Your task to perform on an android device: Go to Amazon Image 0: 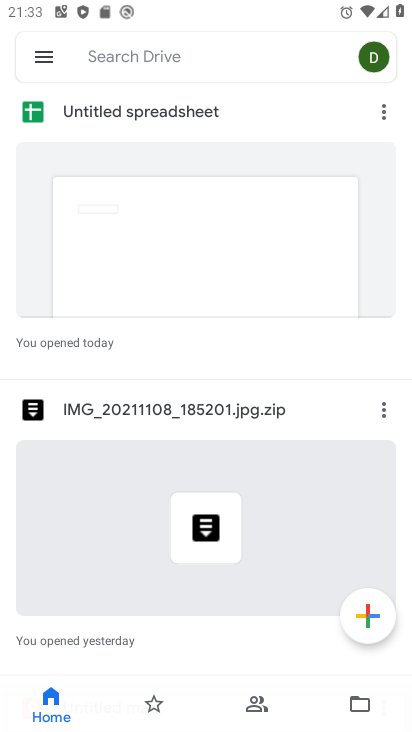
Step 0: press home button
Your task to perform on an android device: Go to Amazon Image 1: 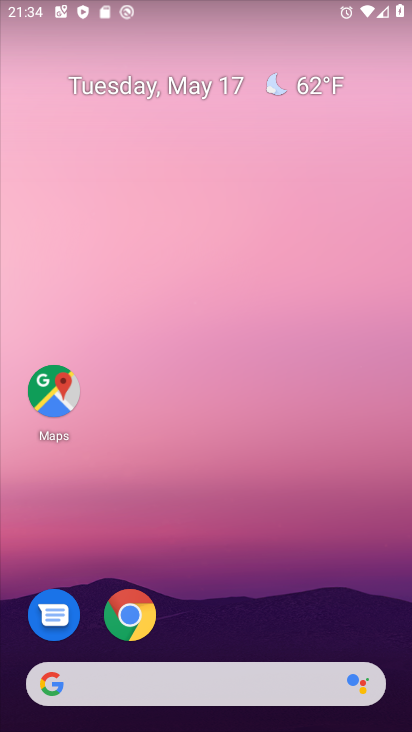
Step 1: click (136, 595)
Your task to perform on an android device: Go to Amazon Image 2: 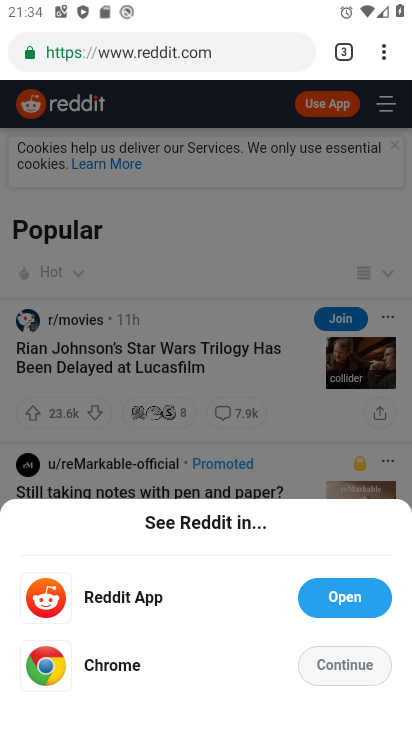
Step 2: click (121, 43)
Your task to perform on an android device: Go to Amazon Image 3: 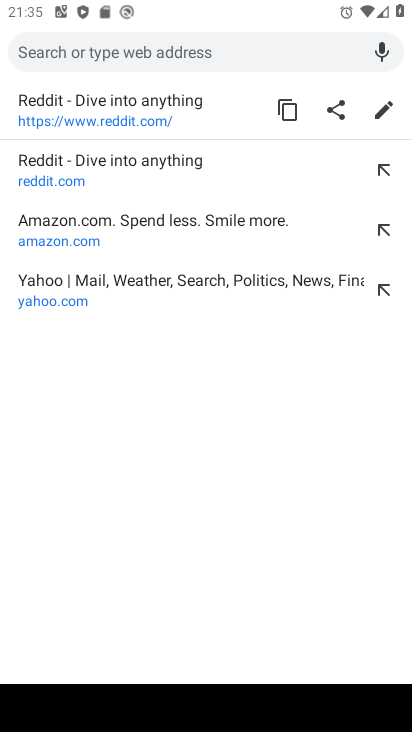
Step 3: type " Amazon"
Your task to perform on an android device: Go to Amazon Image 4: 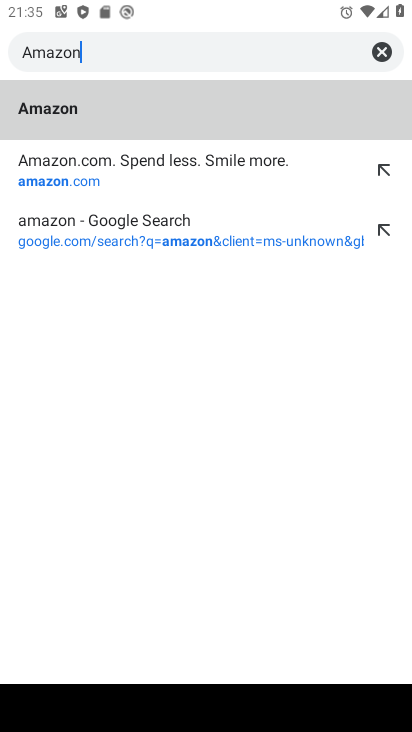
Step 4: type ""
Your task to perform on an android device: Go to Amazon Image 5: 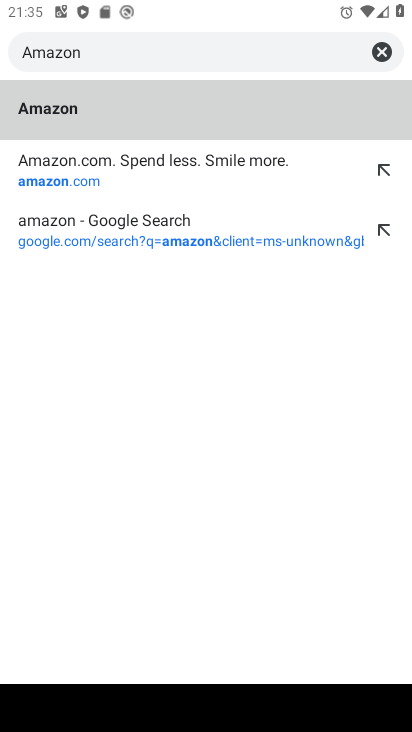
Step 5: click (205, 102)
Your task to perform on an android device: Go to Amazon Image 6: 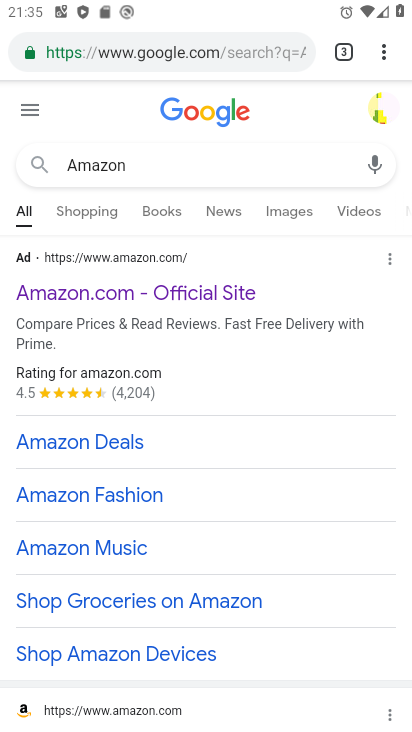
Step 6: click (216, 287)
Your task to perform on an android device: Go to Amazon Image 7: 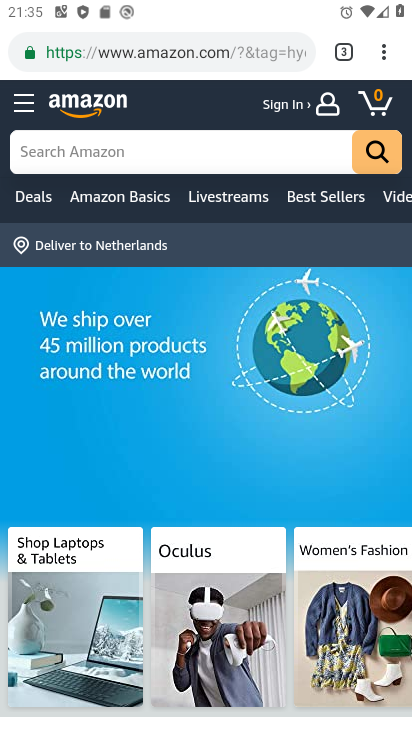
Step 7: task complete